Your task to perform on an android device: Go to Yahoo.com Image 0: 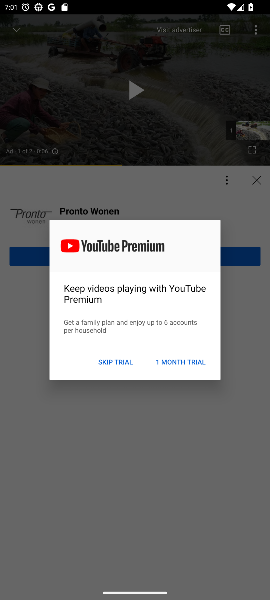
Step 0: press home button
Your task to perform on an android device: Go to Yahoo.com Image 1: 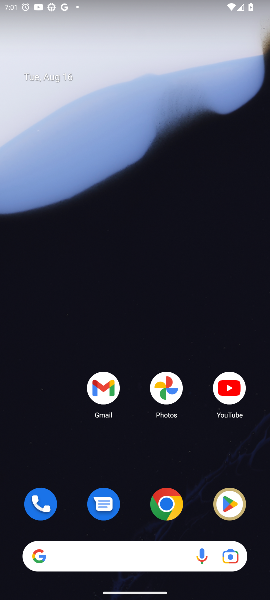
Step 1: click (73, 550)
Your task to perform on an android device: Go to Yahoo.com Image 2: 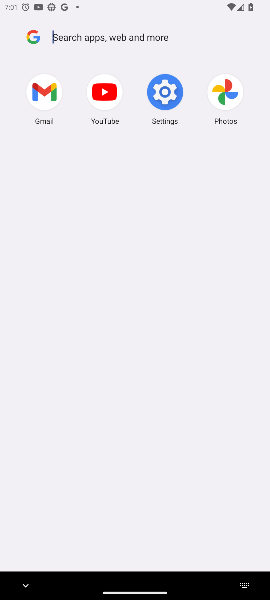
Step 2: type "Yahoo.com"
Your task to perform on an android device: Go to Yahoo.com Image 3: 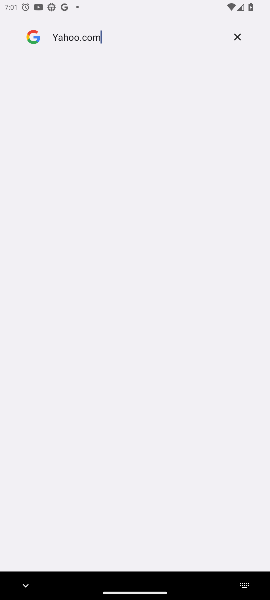
Step 3: type ""
Your task to perform on an android device: Go to Yahoo.com Image 4: 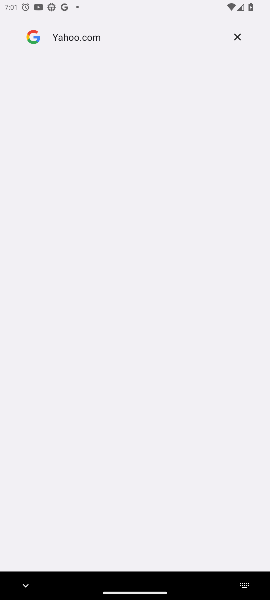
Step 4: type ""
Your task to perform on an android device: Go to Yahoo.com Image 5: 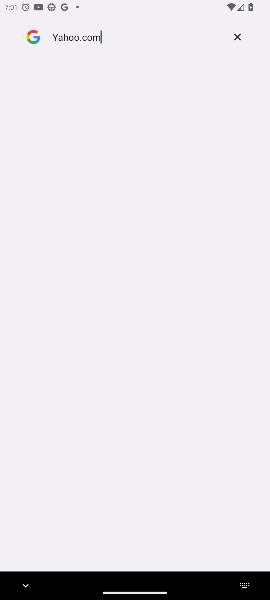
Step 5: task complete